Your task to perform on an android device: Go to notification settings Image 0: 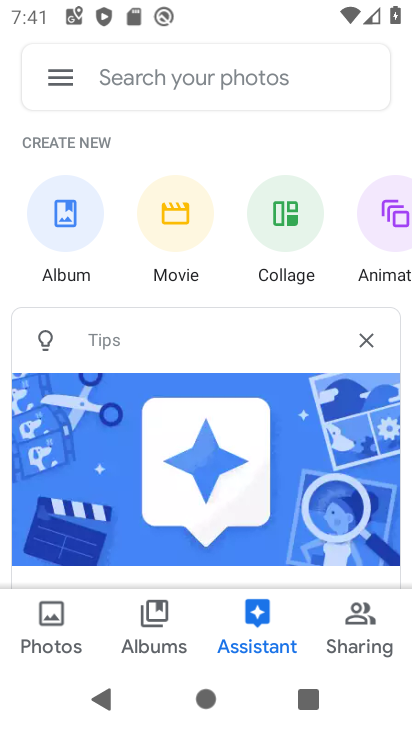
Step 0: press home button
Your task to perform on an android device: Go to notification settings Image 1: 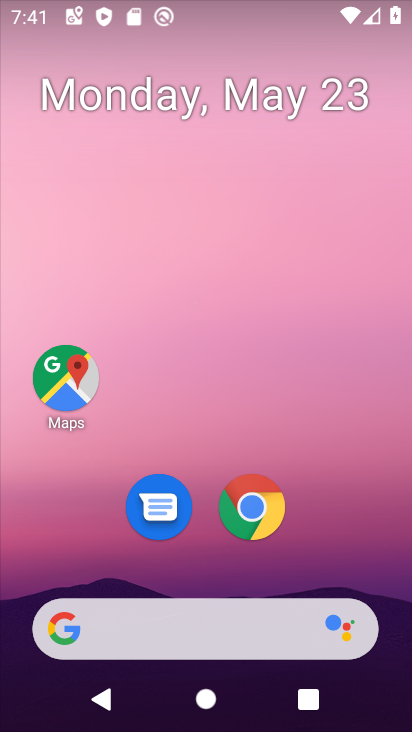
Step 1: drag from (303, 548) to (298, 180)
Your task to perform on an android device: Go to notification settings Image 2: 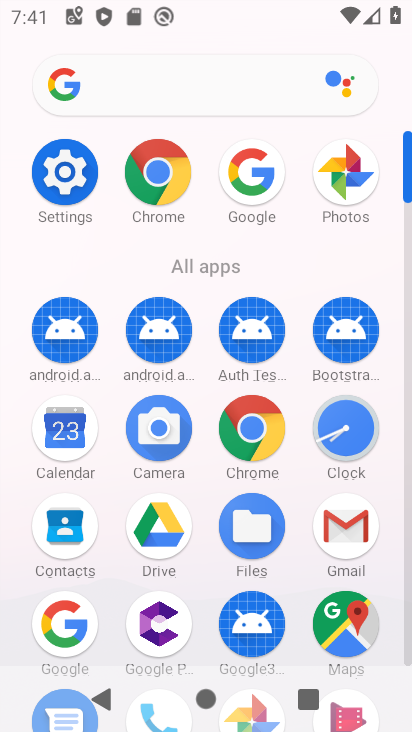
Step 2: click (84, 165)
Your task to perform on an android device: Go to notification settings Image 3: 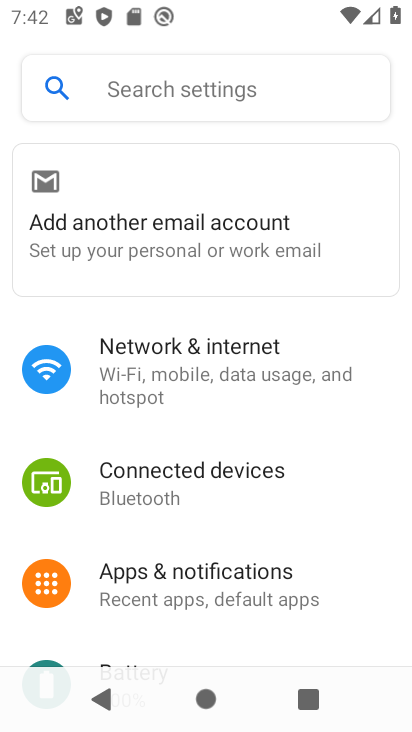
Step 3: drag from (284, 518) to (297, 143)
Your task to perform on an android device: Go to notification settings Image 4: 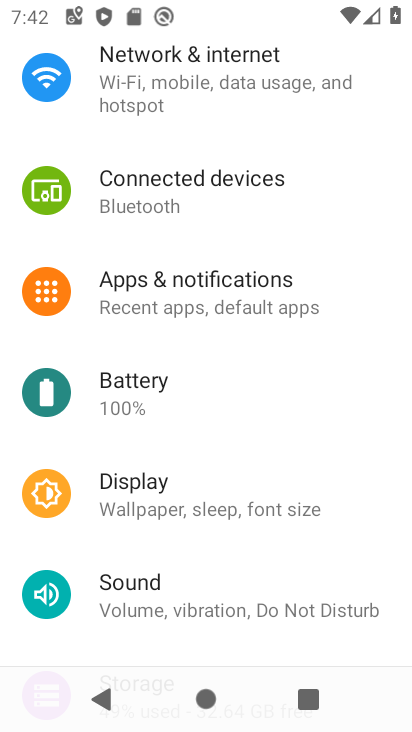
Step 4: click (245, 275)
Your task to perform on an android device: Go to notification settings Image 5: 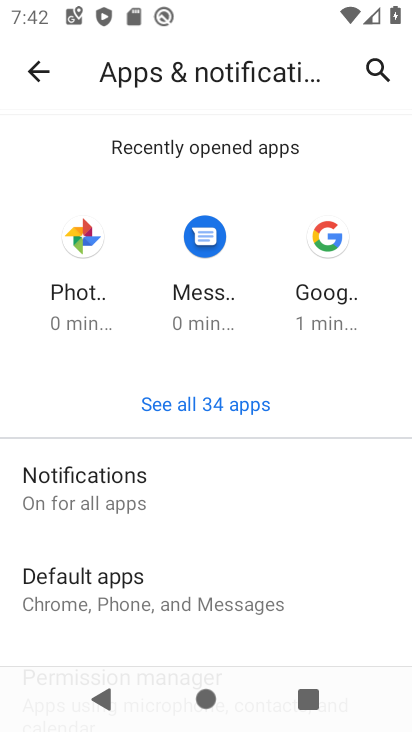
Step 5: click (84, 483)
Your task to perform on an android device: Go to notification settings Image 6: 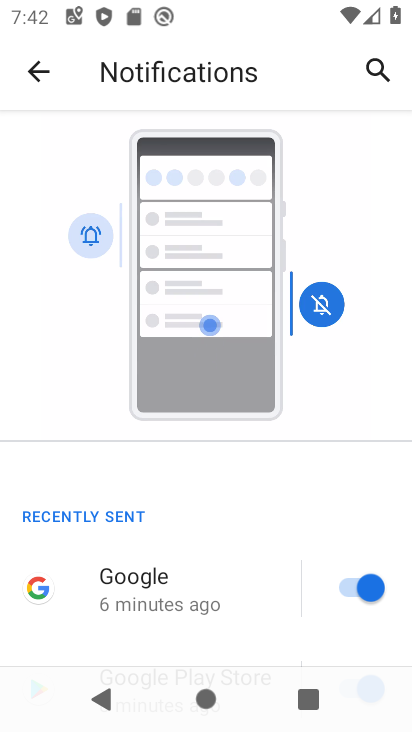
Step 6: task complete